Your task to perform on an android device: check google app version Image 0: 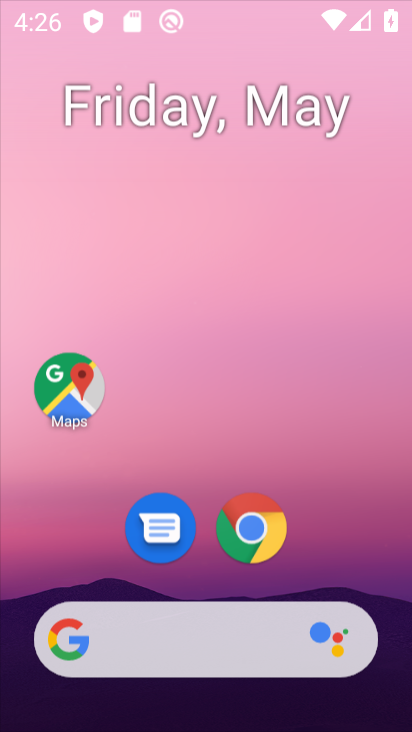
Step 0: click (200, 21)
Your task to perform on an android device: check google app version Image 1: 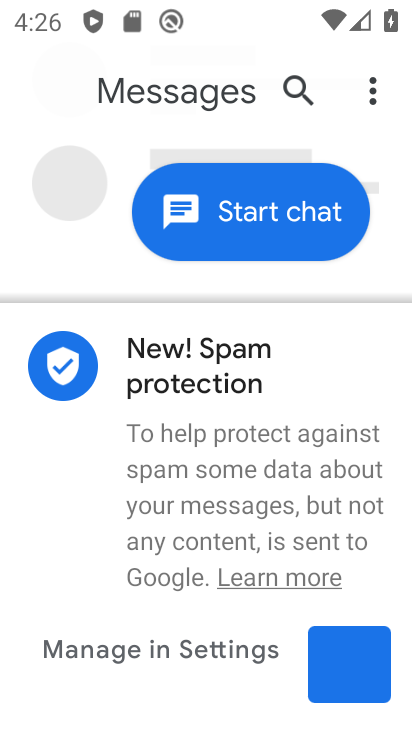
Step 1: press home button
Your task to perform on an android device: check google app version Image 2: 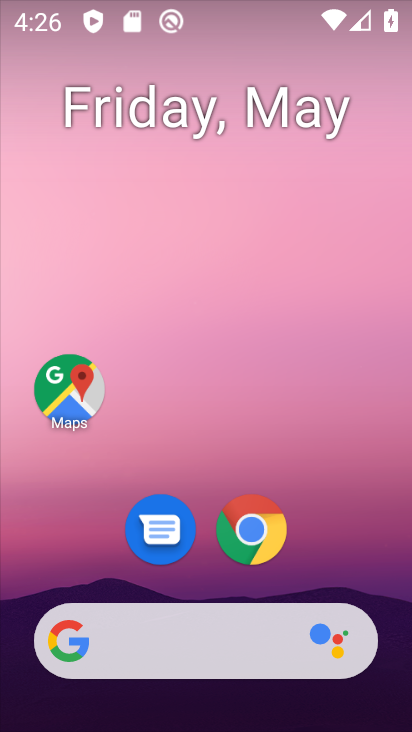
Step 2: drag from (61, 595) to (220, 68)
Your task to perform on an android device: check google app version Image 3: 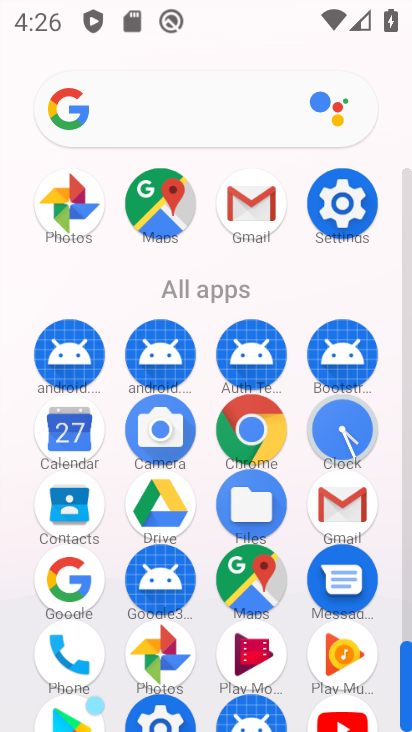
Step 3: drag from (146, 524) to (273, 160)
Your task to perform on an android device: check google app version Image 4: 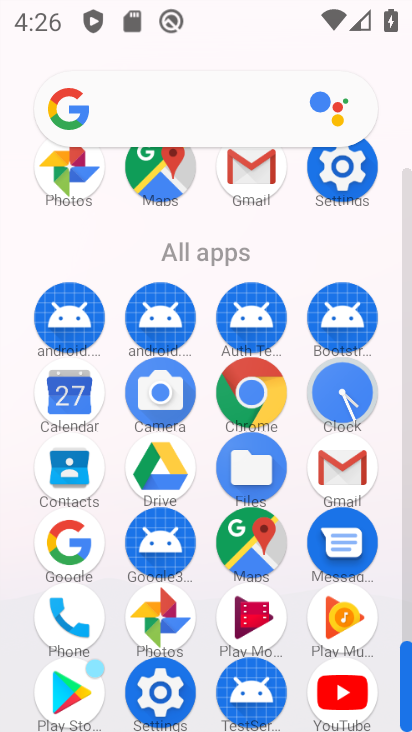
Step 4: click (174, 692)
Your task to perform on an android device: check google app version Image 5: 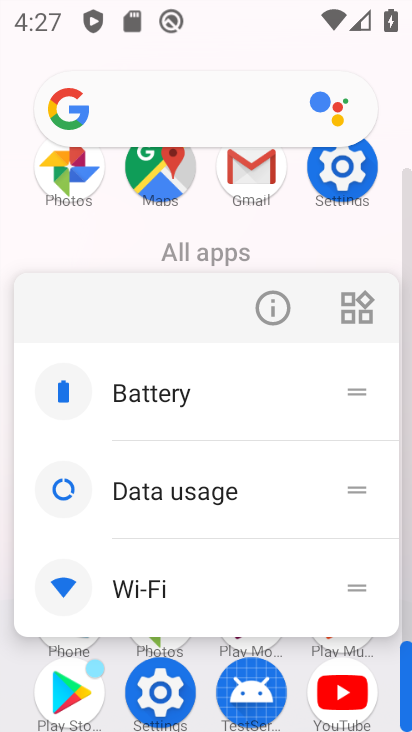
Step 5: click (170, 694)
Your task to perform on an android device: check google app version Image 6: 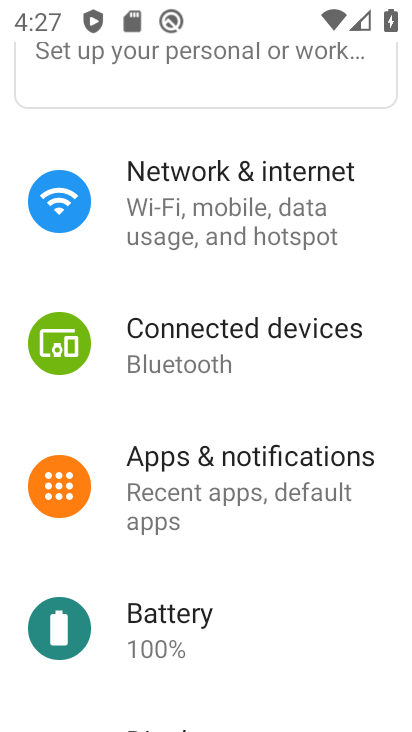
Step 6: click (242, 491)
Your task to perform on an android device: check google app version Image 7: 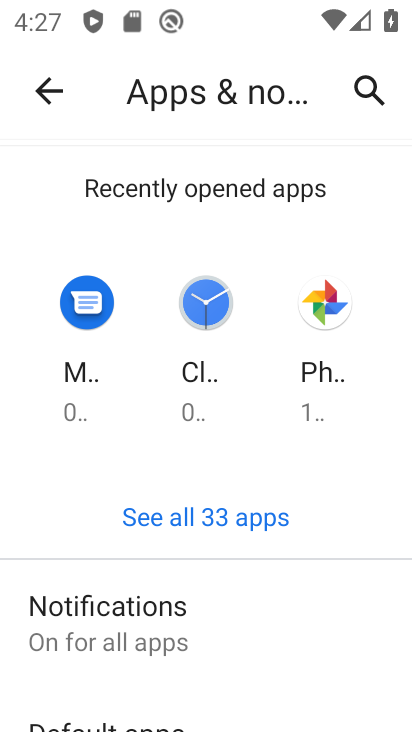
Step 7: click (232, 516)
Your task to perform on an android device: check google app version Image 8: 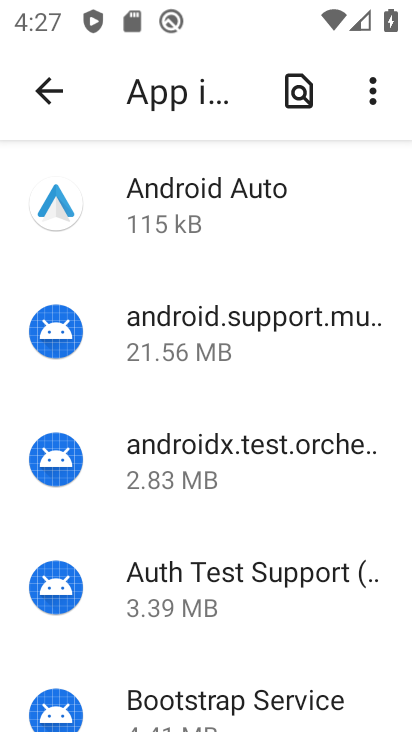
Step 8: drag from (183, 622) to (325, 92)
Your task to perform on an android device: check google app version Image 9: 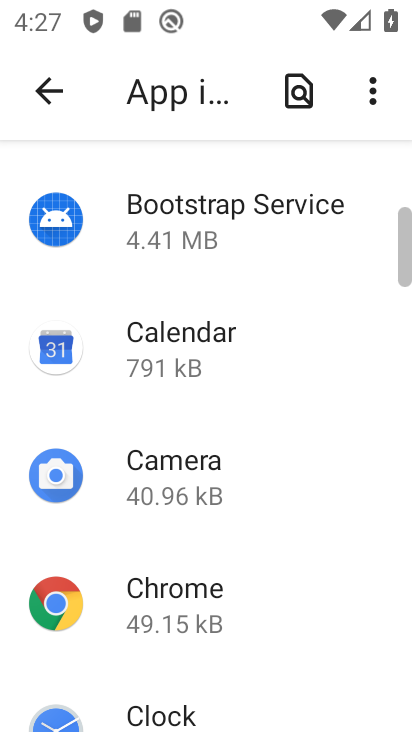
Step 9: drag from (251, 485) to (327, 138)
Your task to perform on an android device: check google app version Image 10: 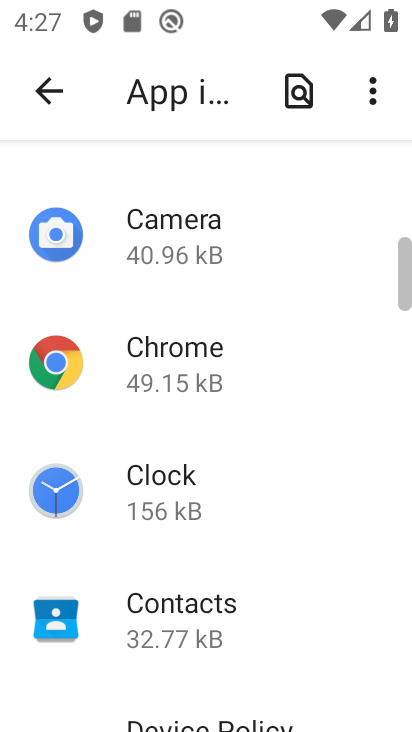
Step 10: drag from (231, 573) to (376, 40)
Your task to perform on an android device: check google app version Image 11: 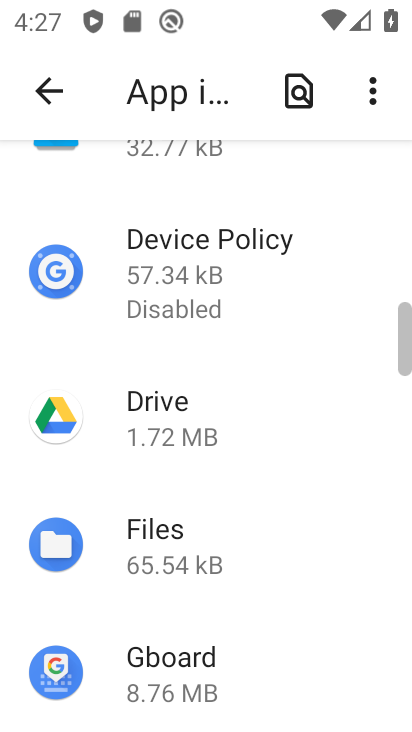
Step 11: drag from (232, 574) to (372, 71)
Your task to perform on an android device: check google app version Image 12: 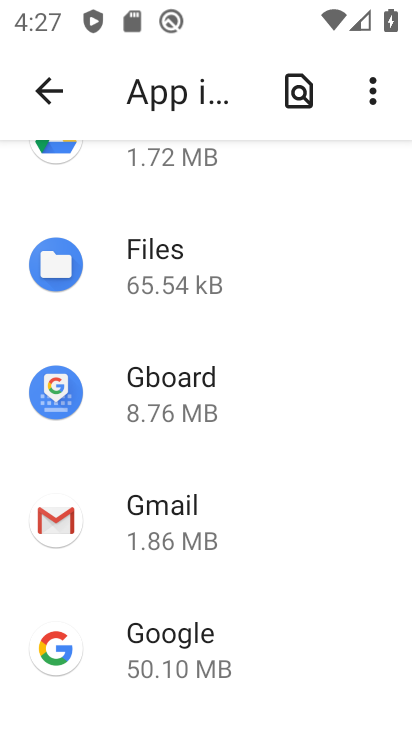
Step 12: drag from (177, 643) to (281, 265)
Your task to perform on an android device: check google app version Image 13: 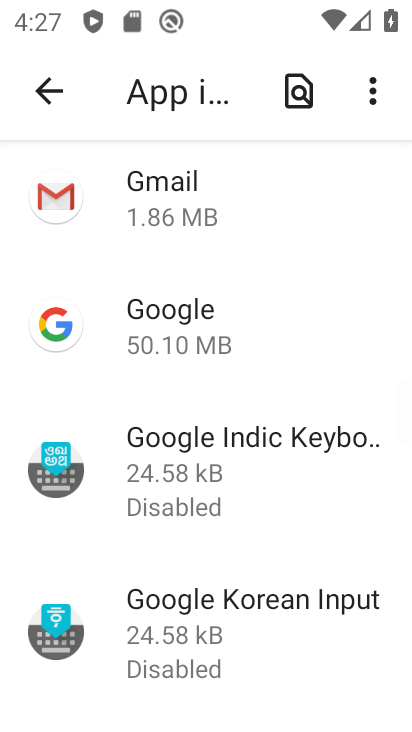
Step 13: click (228, 302)
Your task to perform on an android device: check google app version Image 14: 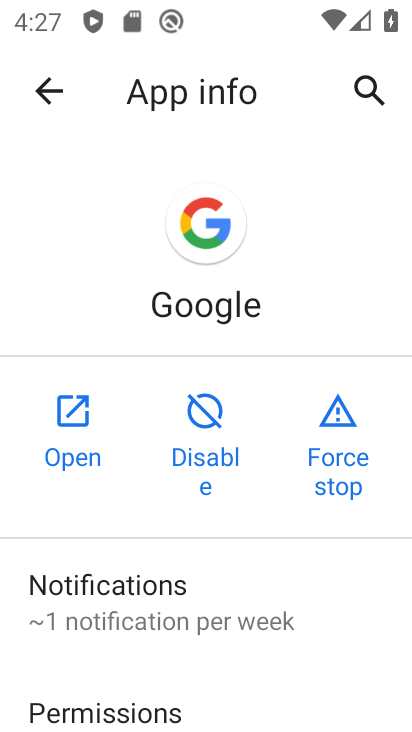
Step 14: drag from (216, 647) to (358, 134)
Your task to perform on an android device: check google app version Image 15: 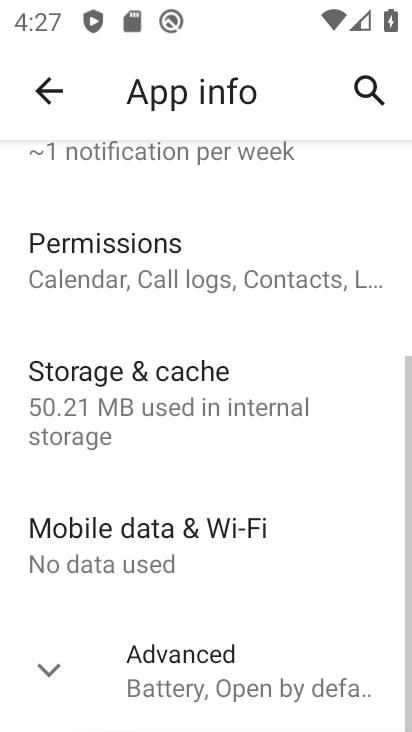
Step 15: drag from (202, 604) to (293, 298)
Your task to perform on an android device: check google app version Image 16: 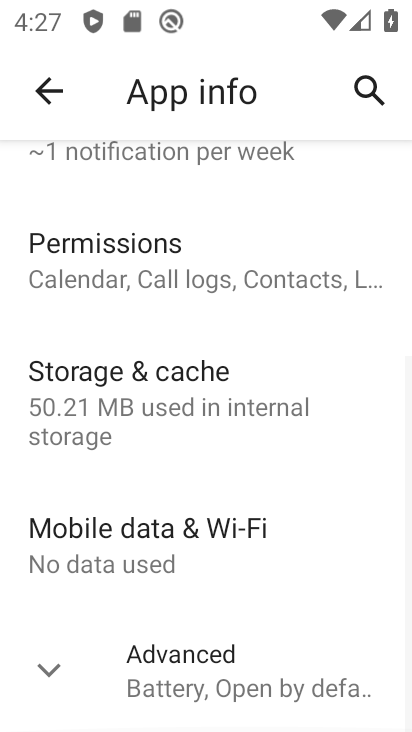
Step 16: click (196, 654)
Your task to perform on an android device: check google app version Image 17: 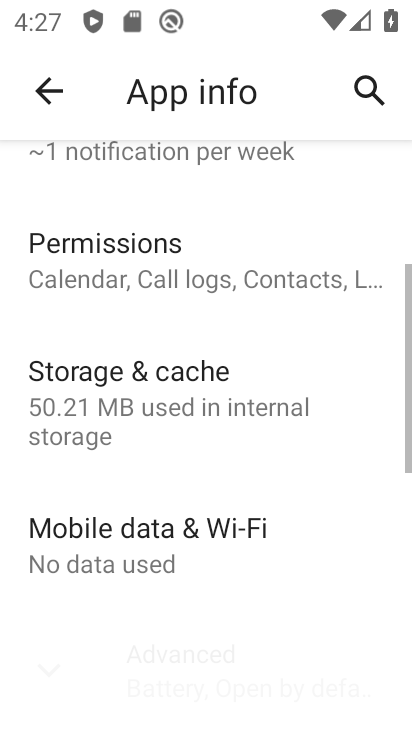
Step 17: task complete